Your task to perform on an android device: toggle airplane mode Image 0: 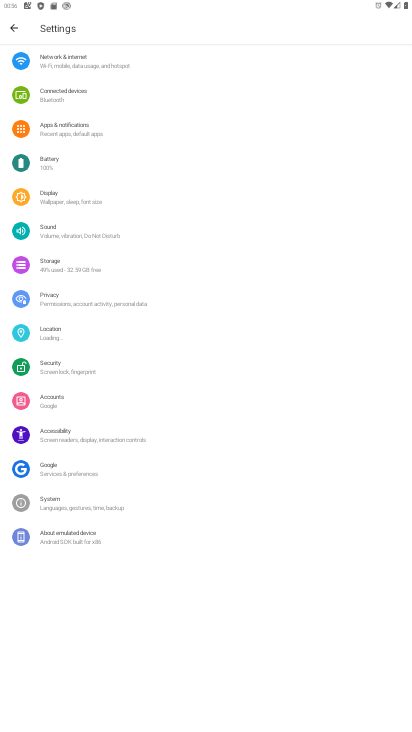
Step 0: press home button
Your task to perform on an android device: toggle airplane mode Image 1: 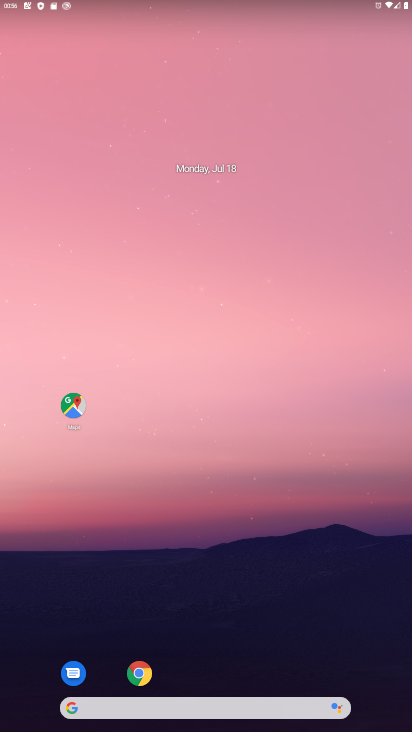
Step 1: drag from (279, 672) to (254, 75)
Your task to perform on an android device: toggle airplane mode Image 2: 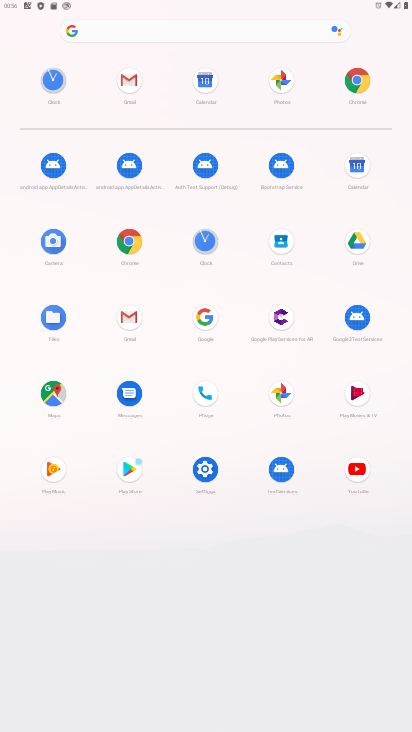
Step 2: click (217, 478)
Your task to perform on an android device: toggle airplane mode Image 3: 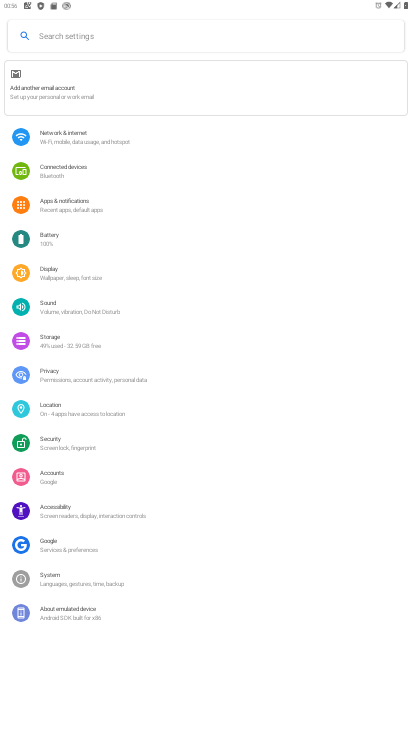
Step 3: click (211, 131)
Your task to perform on an android device: toggle airplane mode Image 4: 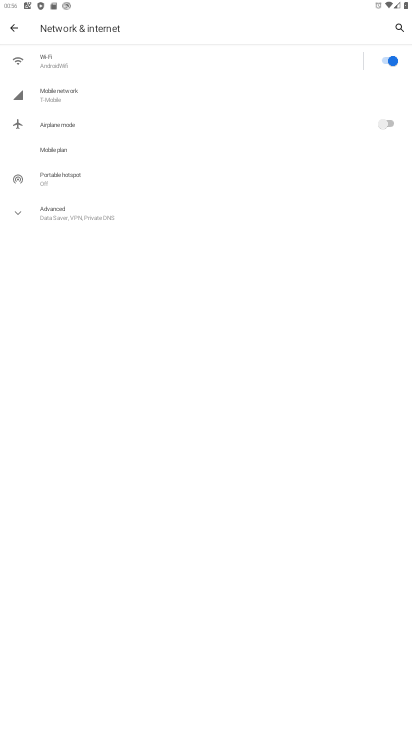
Step 4: click (393, 129)
Your task to perform on an android device: toggle airplane mode Image 5: 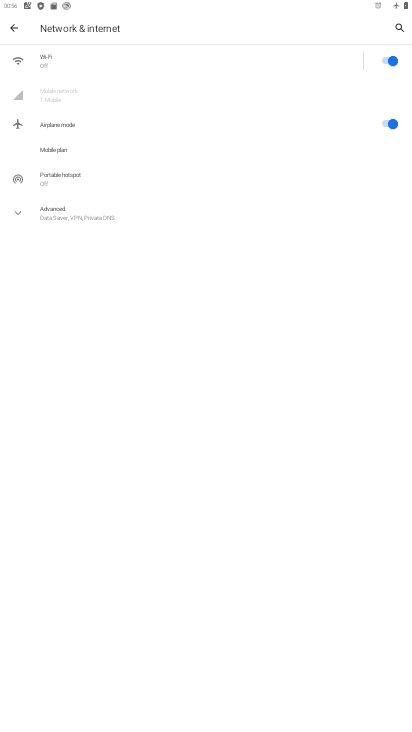
Step 5: click (397, 63)
Your task to perform on an android device: toggle airplane mode Image 6: 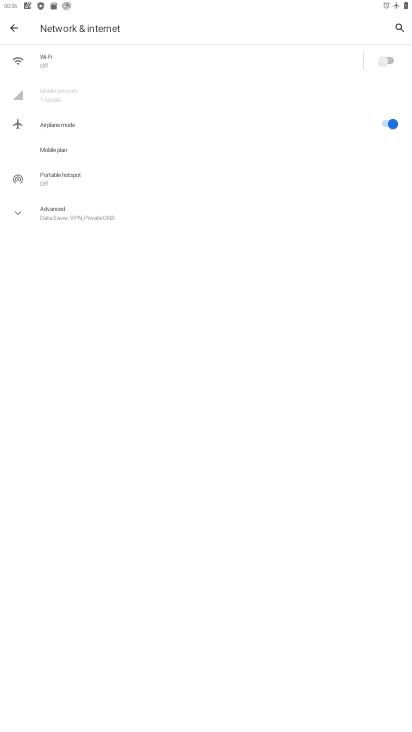
Step 6: task complete